Your task to perform on an android device: turn off notifications settings in the gmail app Image 0: 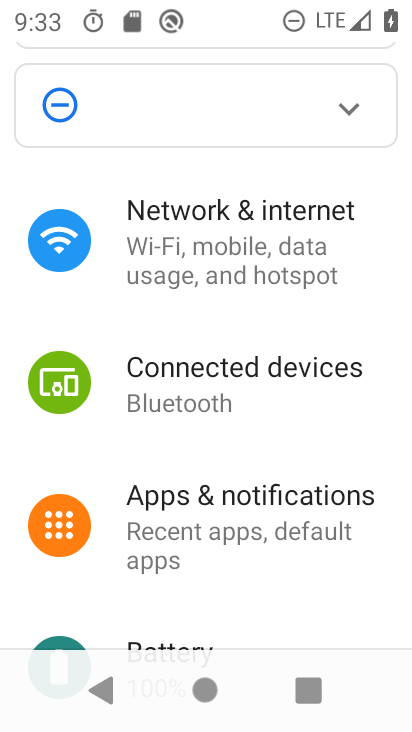
Step 0: drag from (181, 564) to (186, 222)
Your task to perform on an android device: turn off notifications settings in the gmail app Image 1: 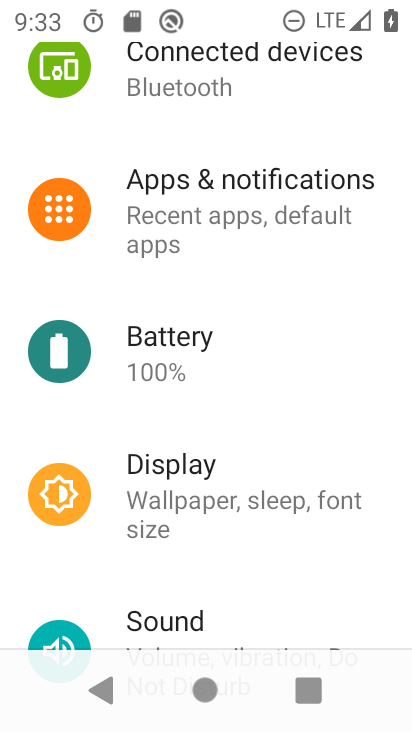
Step 1: press home button
Your task to perform on an android device: turn off notifications settings in the gmail app Image 2: 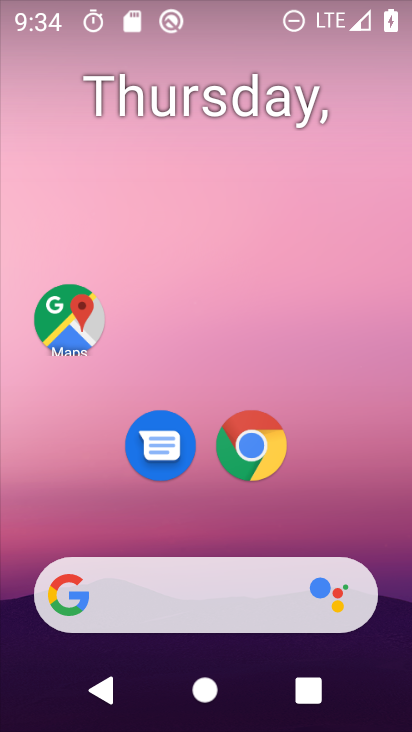
Step 2: drag from (175, 520) to (209, 165)
Your task to perform on an android device: turn off notifications settings in the gmail app Image 3: 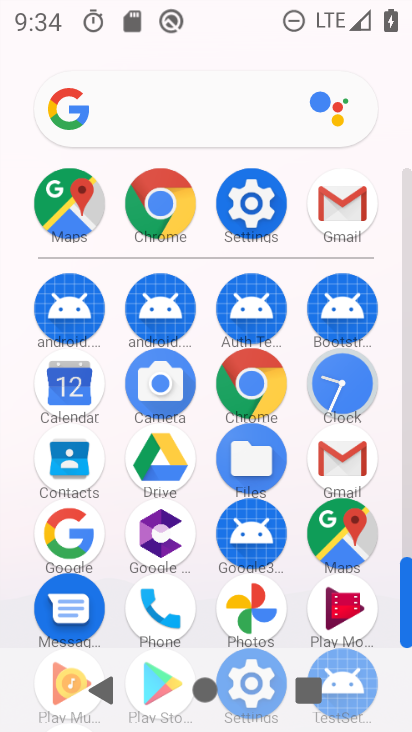
Step 3: click (326, 456)
Your task to perform on an android device: turn off notifications settings in the gmail app Image 4: 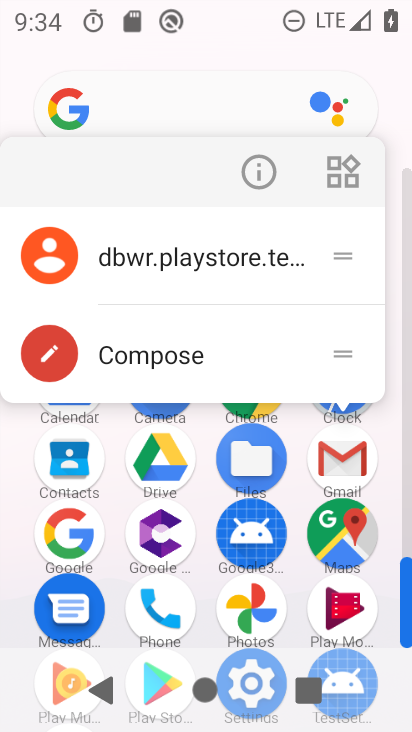
Step 4: click (258, 159)
Your task to perform on an android device: turn off notifications settings in the gmail app Image 5: 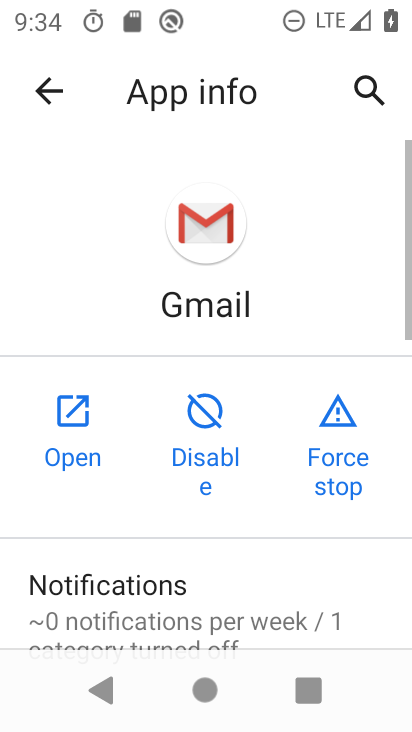
Step 5: click (97, 432)
Your task to perform on an android device: turn off notifications settings in the gmail app Image 6: 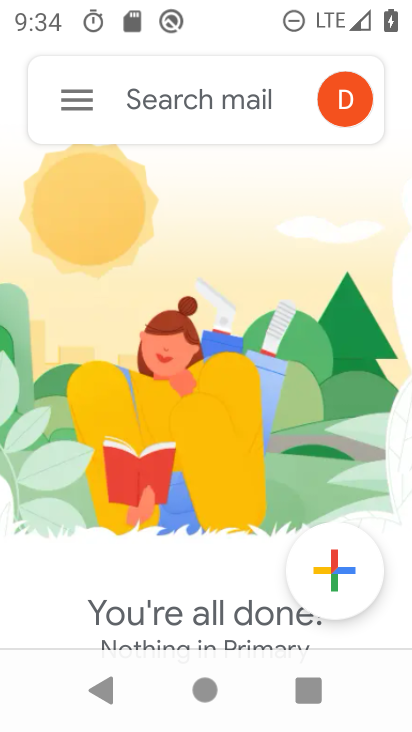
Step 6: click (72, 101)
Your task to perform on an android device: turn off notifications settings in the gmail app Image 7: 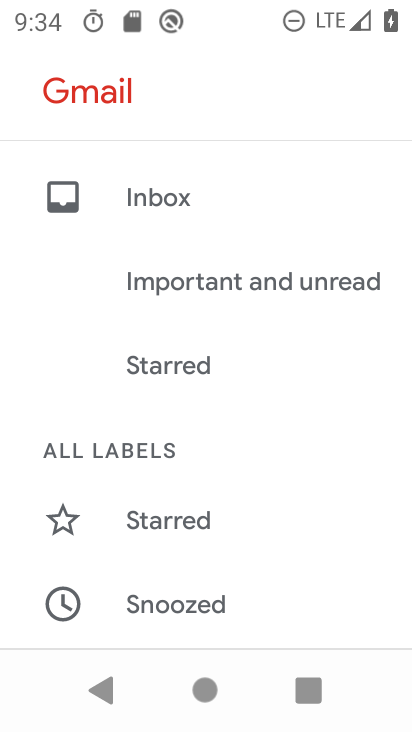
Step 7: drag from (217, 533) to (258, 45)
Your task to perform on an android device: turn off notifications settings in the gmail app Image 8: 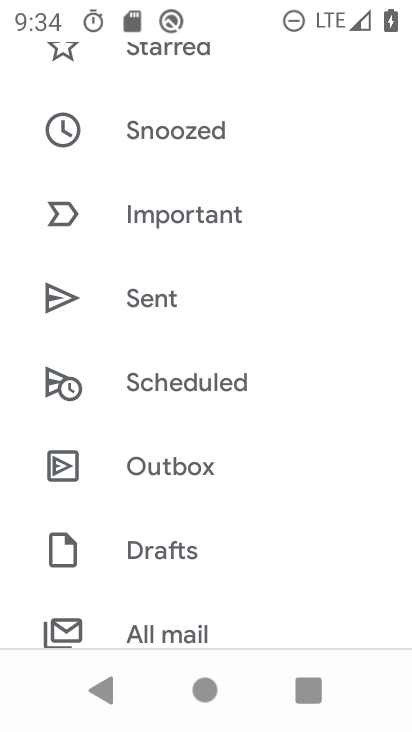
Step 8: drag from (173, 430) to (196, 4)
Your task to perform on an android device: turn off notifications settings in the gmail app Image 9: 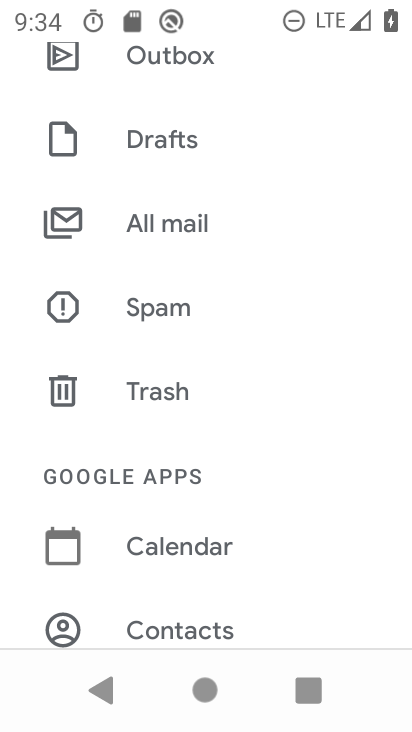
Step 9: drag from (181, 552) to (229, 115)
Your task to perform on an android device: turn off notifications settings in the gmail app Image 10: 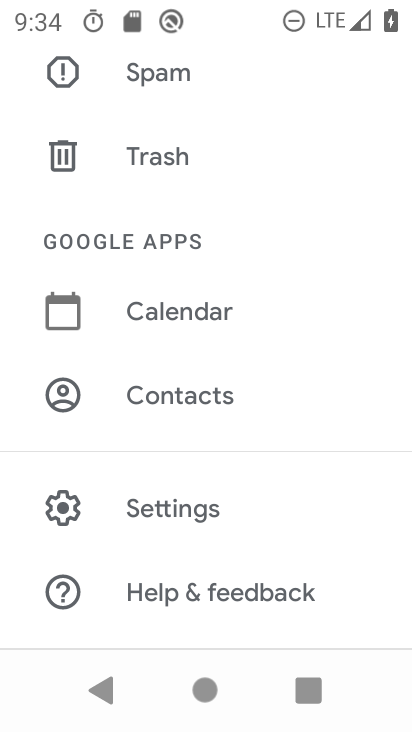
Step 10: click (175, 490)
Your task to perform on an android device: turn off notifications settings in the gmail app Image 11: 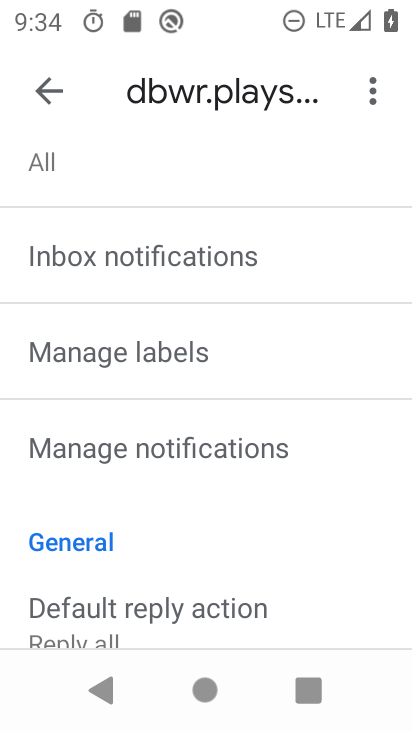
Step 11: drag from (227, 587) to (253, 321)
Your task to perform on an android device: turn off notifications settings in the gmail app Image 12: 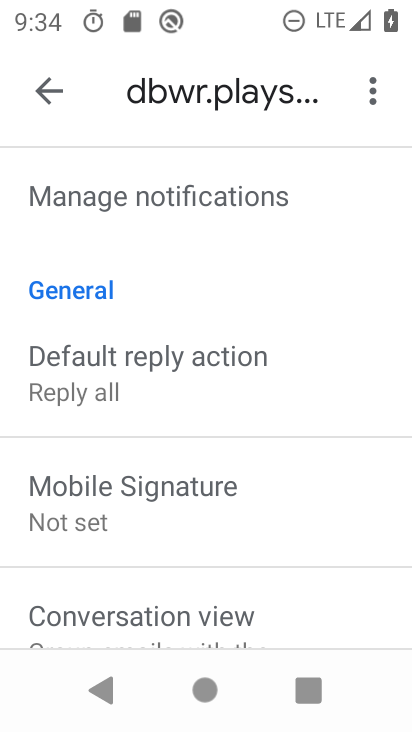
Step 12: click (176, 203)
Your task to perform on an android device: turn off notifications settings in the gmail app Image 13: 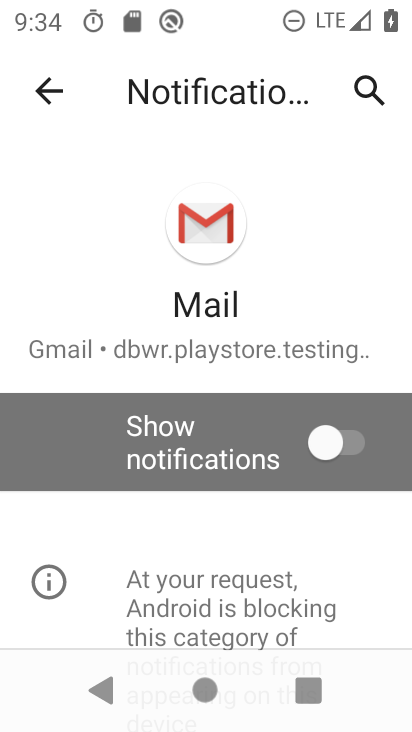
Step 13: task complete